Your task to perform on an android device: Go to ESPN.com Image 0: 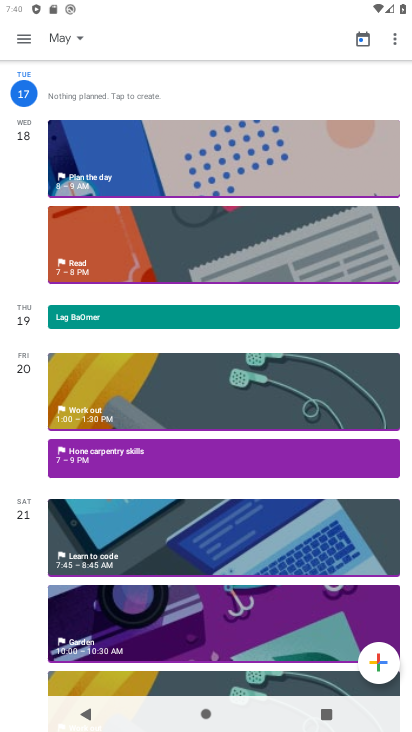
Step 0: press home button
Your task to perform on an android device: Go to ESPN.com Image 1: 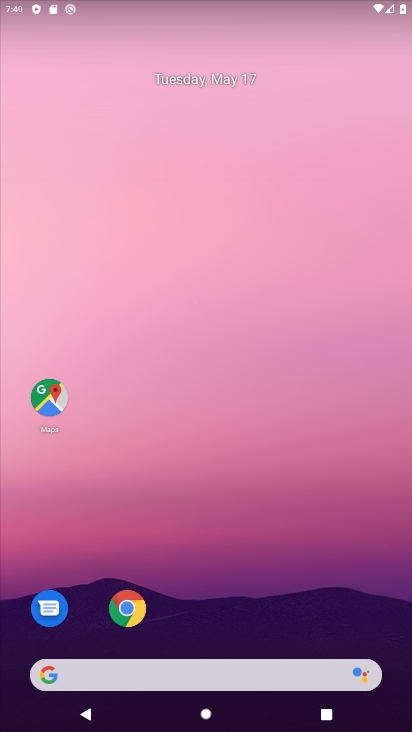
Step 1: click (124, 599)
Your task to perform on an android device: Go to ESPN.com Image 2: 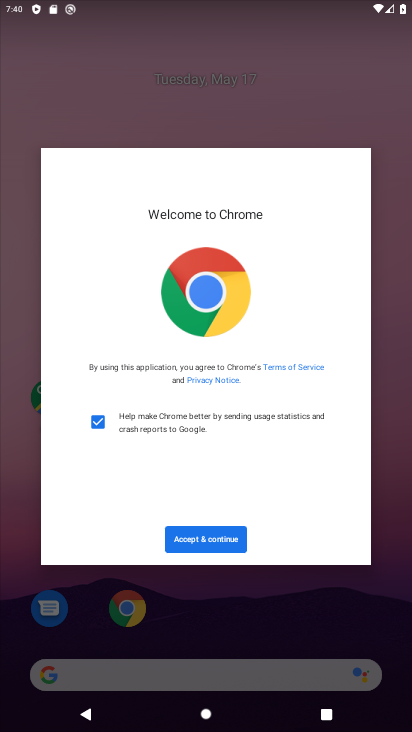
Step 2: click (198, 533)
Your task to perform on an android device: Go to ESPN.com Image 3: 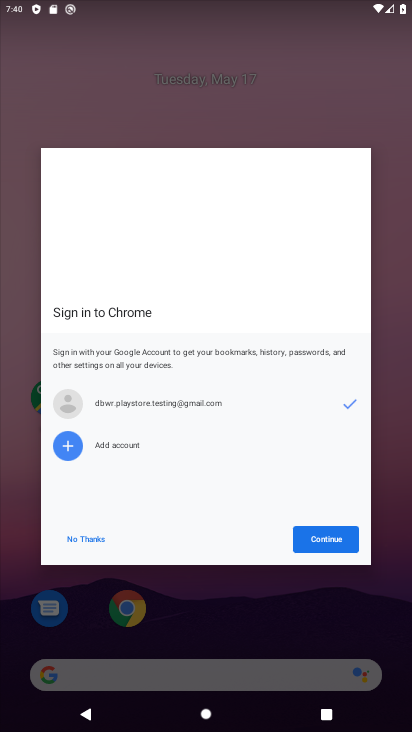
Step 3: click (331, 542)
Your task to perform on an android device: Go to ESPN.com Image 4: 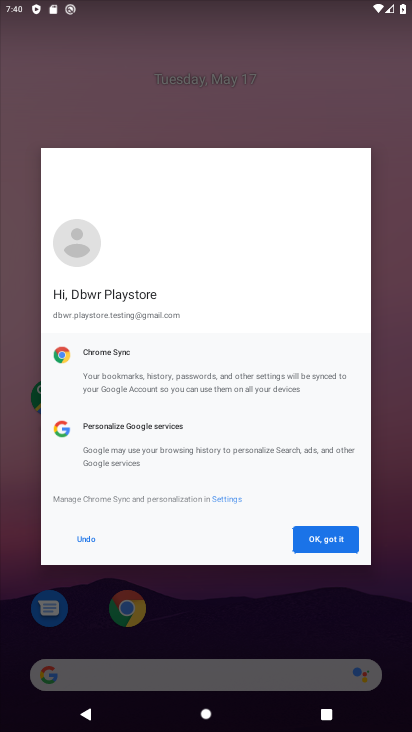
Step 4: click (331, 542)
Your task to perform on an android device: Go to ESPN.com Image 5: 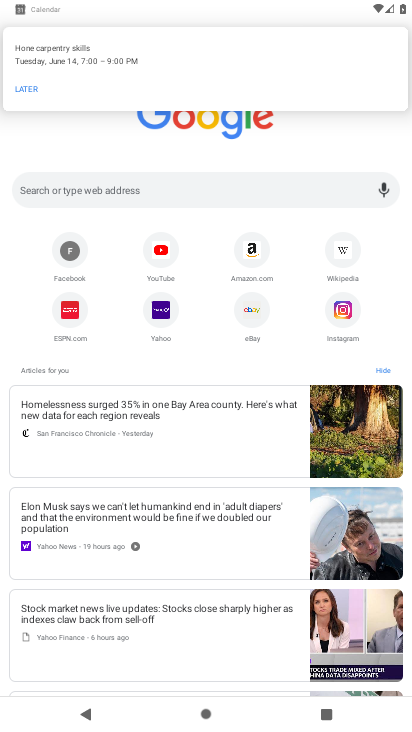
Step 5: click (74, 321)
Your task to perform on an android device: Go to ESPN.com Image 6: 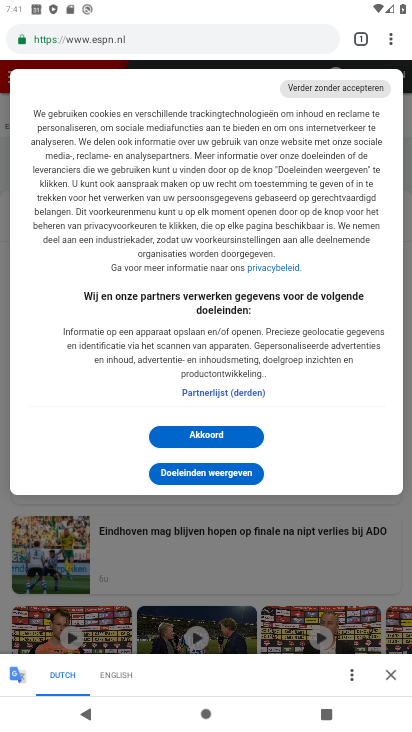
Step 6: task complete